Your task to perform on an android device: Open Google Image 0: 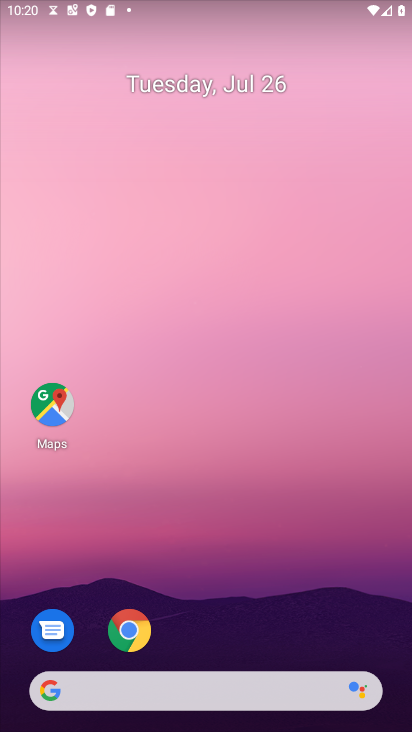
Step 0: click (163, 690)
Your task to perform on an android device: Open Google Image 1: 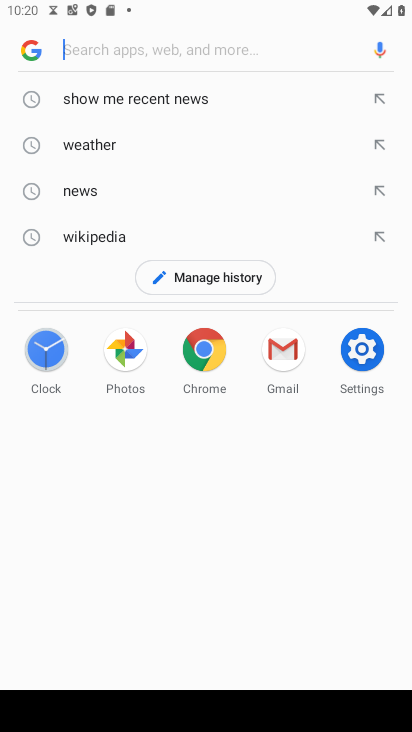
Step 1: task complete